Your task to perform on an android device: Search for pizza restaurants on Maps Image 0: 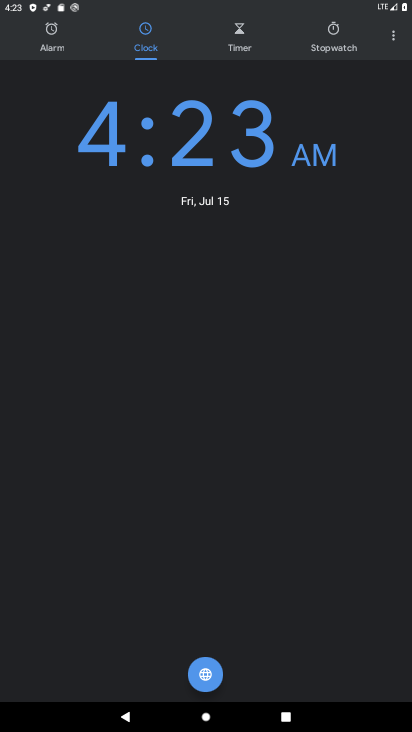
Step 0: press home button
Your task to perform on an android device: Search for pizza restaurants on Maps Image 1: 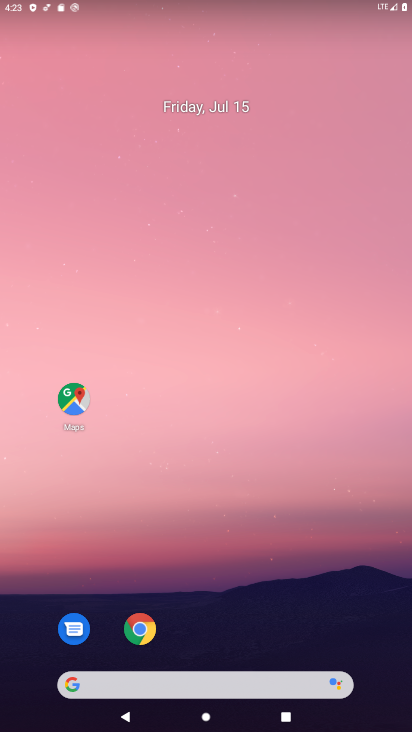
Step 1: click (78, 411)
Your task to perform on an android device: Search for pizza restaurants on Maps Image 2: 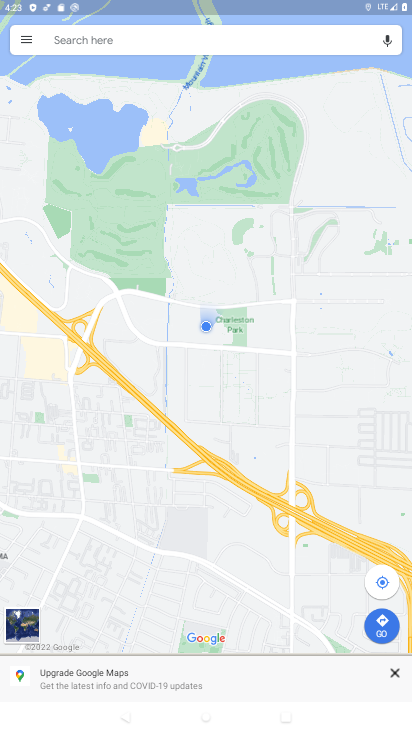
Step 2: click (108, 46)
Your task to perform on an android device: Search for pizza restaurants on Maps Image 3: 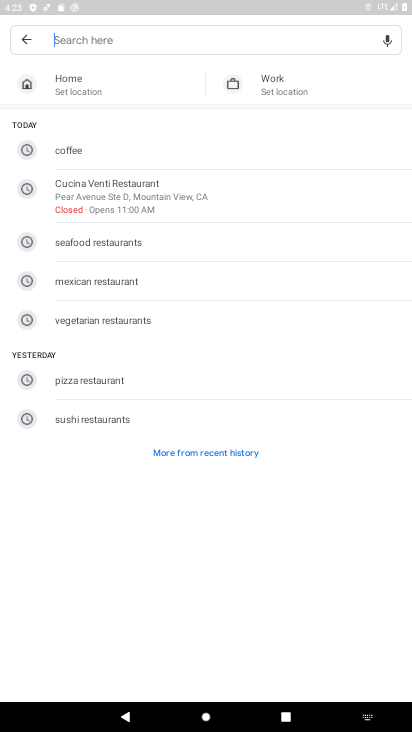
Step 3: click (115, 381)
Your task to perform on an android device: Search for pizza restaurants on Maps Image 4: 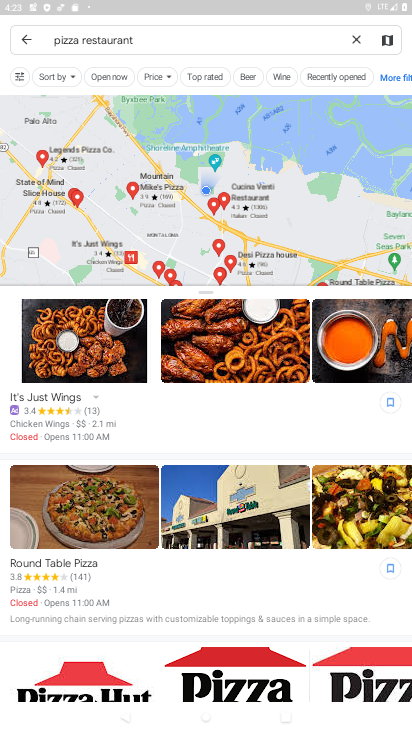
Step 4: task complete